Your task to perform on an android device: Go to Maps Image 0: 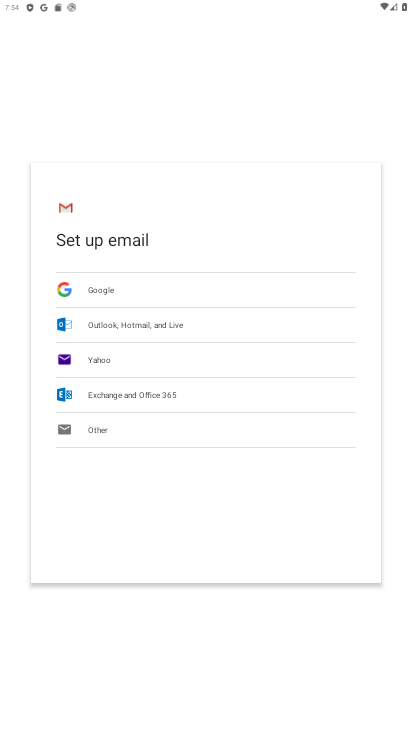
Step 0: press home button
Your task to perform on an android device: Go to Maps Image 1: 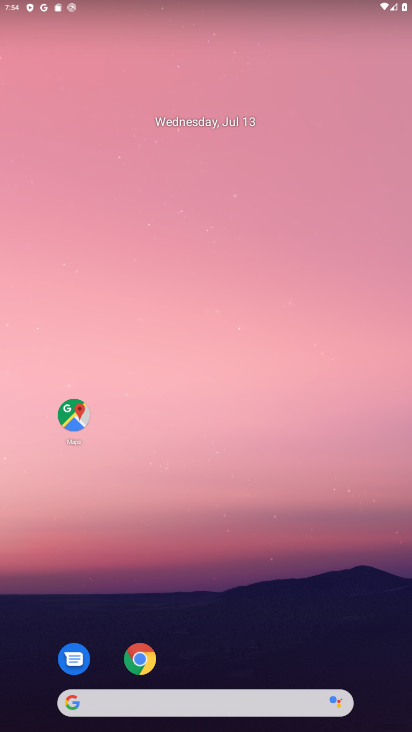
Step 1: click (71, 419)
Your task to perform on an android device: Go to Maps Image 2: 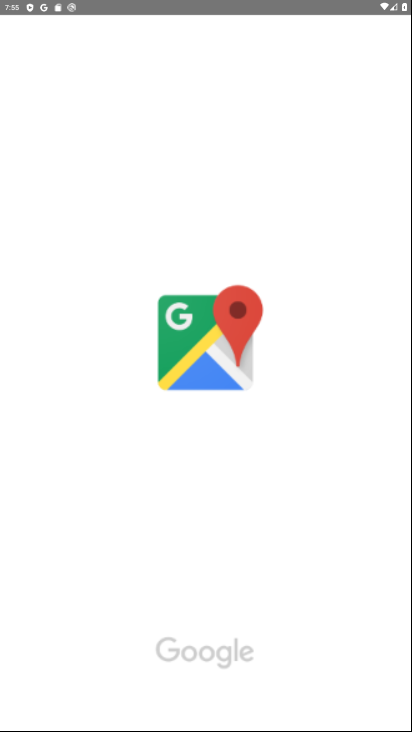
Step 2: task complete